Your task to perform on an android device: change the clock display to digital Image 0: 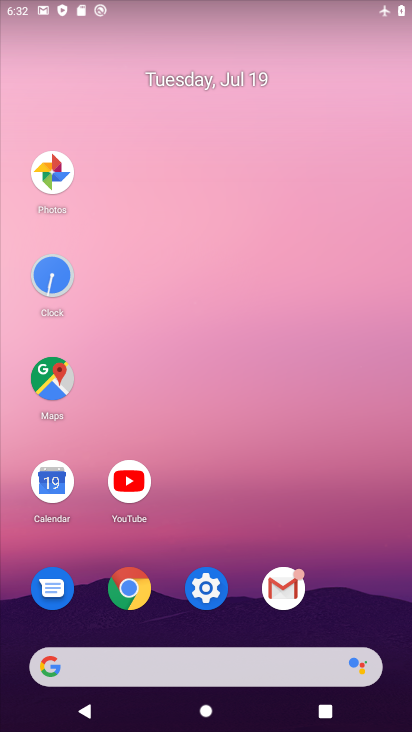
Step 0: click (49, 261)
Your task to perform on an android device: change the clock display to digital Image 1: 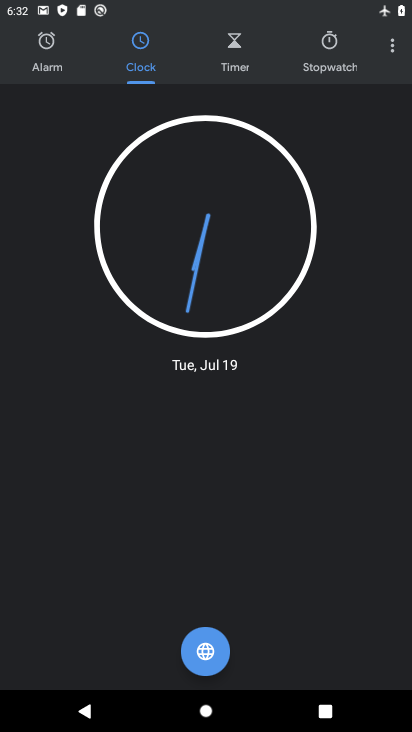
Step 1: click (393, 41)
Your task to perform on an android device: change the clock display to digital Image 2: 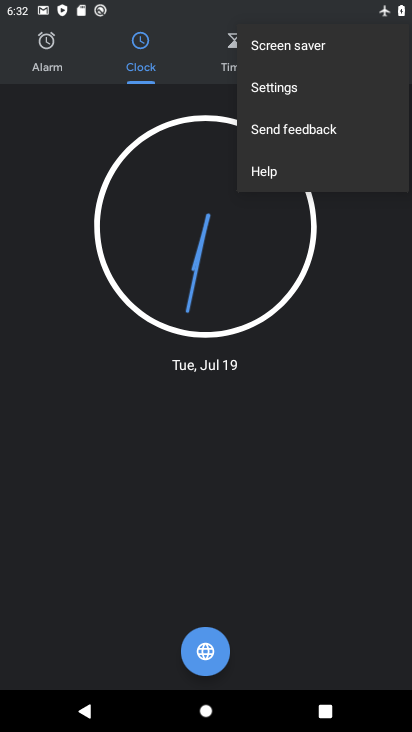
Step 2: click (286, 92)
Your task to perform on an android device: change the clock display to digital Image 3: 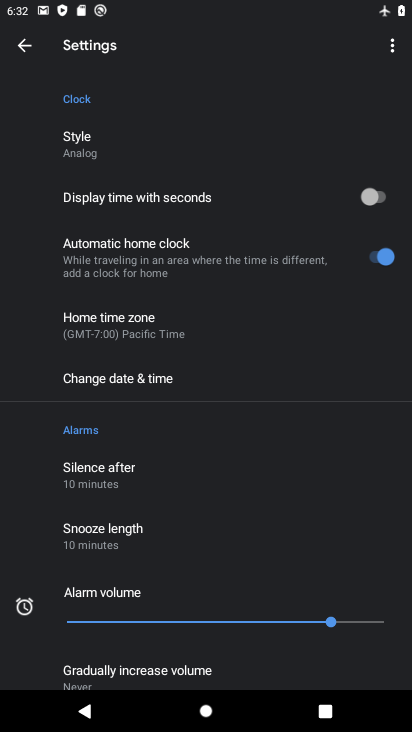
Step 3: click (75, 135)
Your task to perform on an android device: change the clock display to digital Image 4: 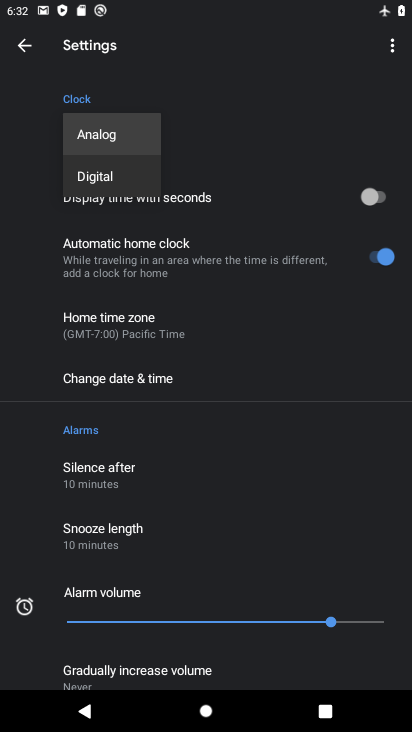
Step 4: click (86, 173)
Your task to perform on an android device: change the clock display to digital Image 5: 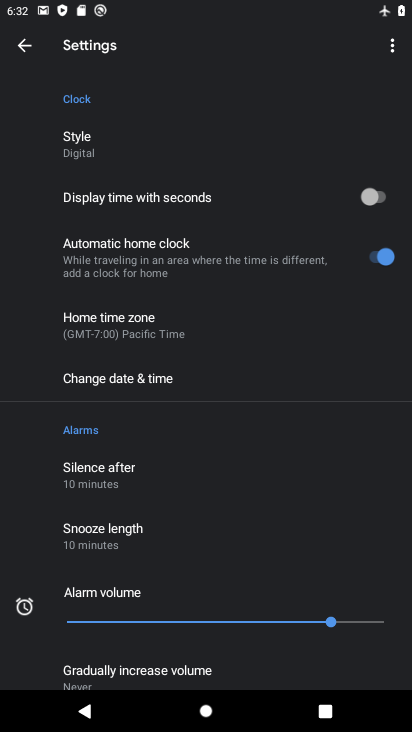
Step 5: task complete